Your task to perform on an android device: Open sound settings Image 0: 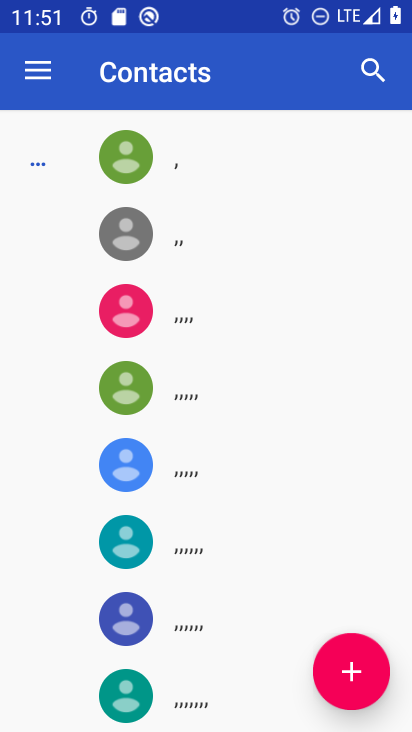
Step 0: press home button
Your task to perform on an android device: Open sound settings Image 1: 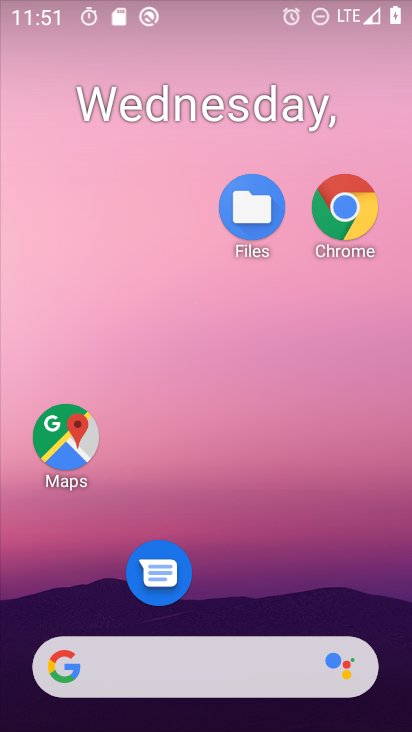
Step 1: drag from (215, 676) to (317, 129)
Your task to perform on an android device: Open sound settings Image 2: 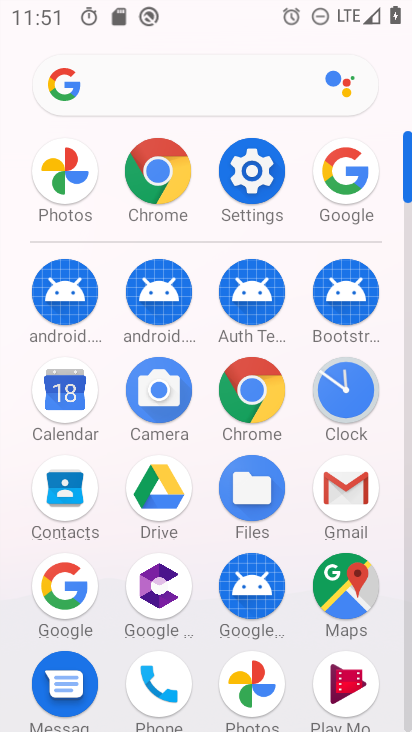
Step 2: click (271, 181)
Your task to perform on an android device: Open sound settings Image 3: 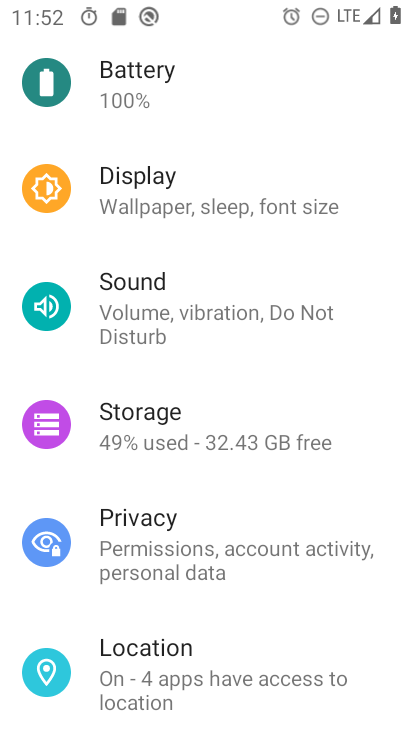
Step 3: click (231, 336)
Your task to perform on an android device: Open sound settings Image 4: 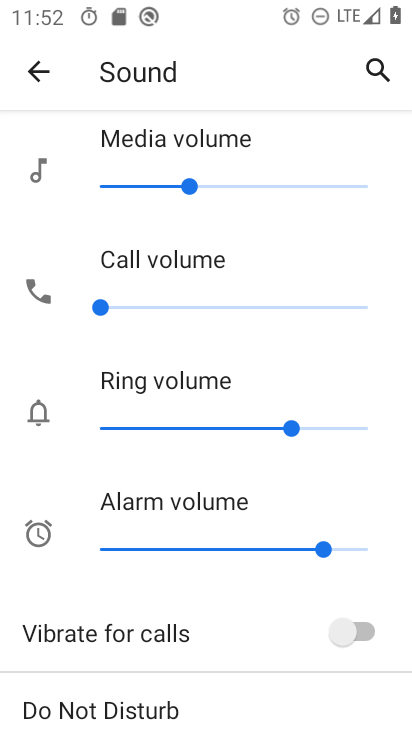
Step 4: task complete